Your task to perform on an android device: See recent photos Image 0: 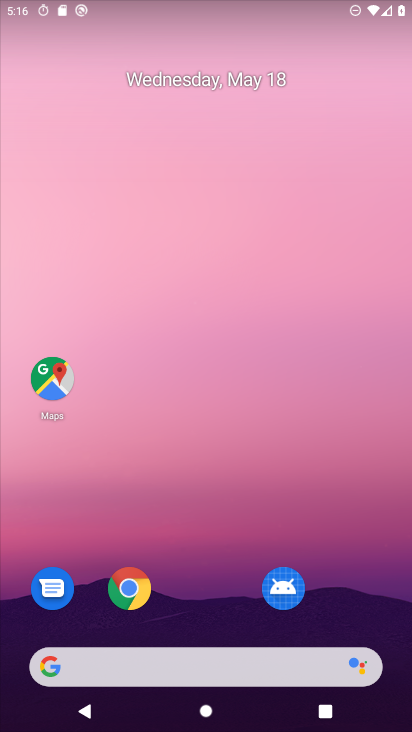
Step 0: drag from (237, 588) to (321, 107)
Your task to perform on an android device: See recent photos Image 1: 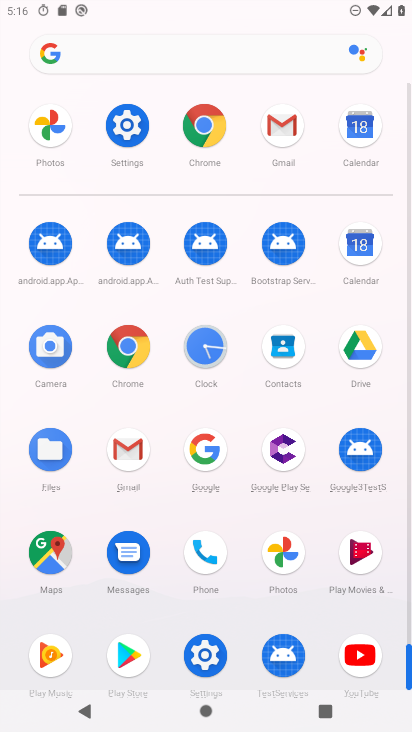
Step 1: click (282, 551)
Your task to perform on an android device: See recent photos Image 2: 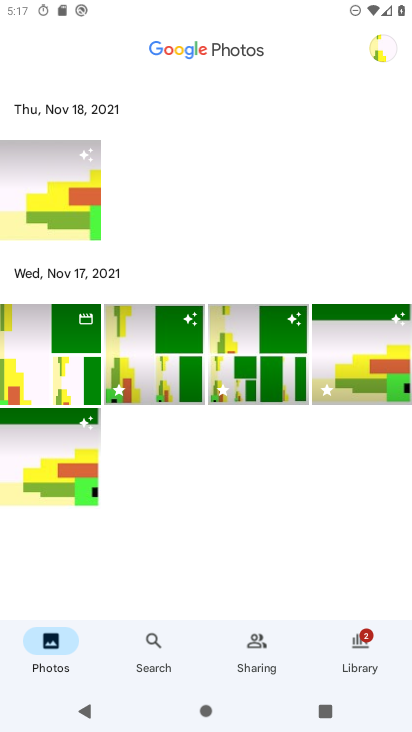
Step 2: click (49, 644)
Your task to perform on an android device: See recent photos Image 3: 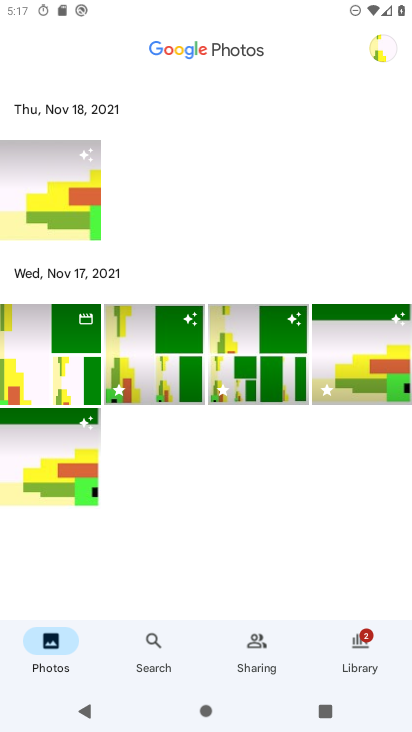
Step 3: click (382, 45)
Your task to perform on an android device: See recent photos Image 4: 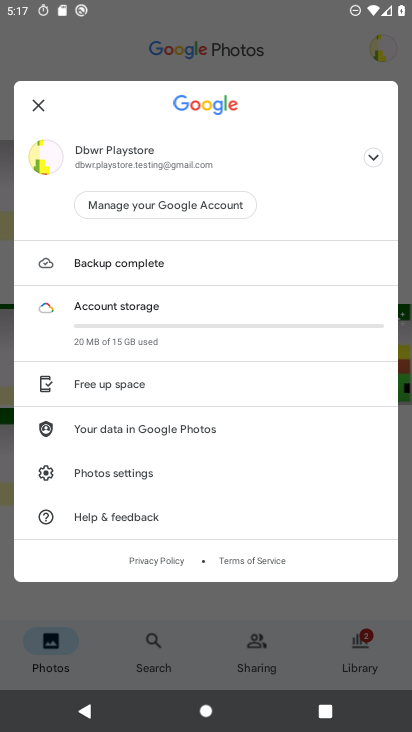
Step 4: click (35, 97)
Your task to perform on an android device: See recent photos Image 5: 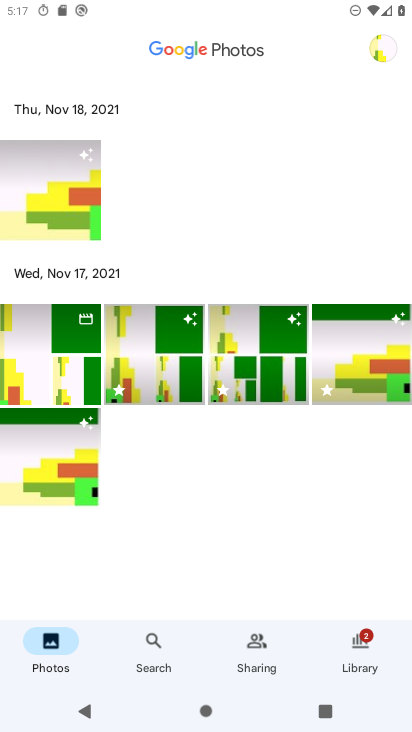
Step 5: click (355, 652)
Your task to perform on an android device: See recent photos Image 6: 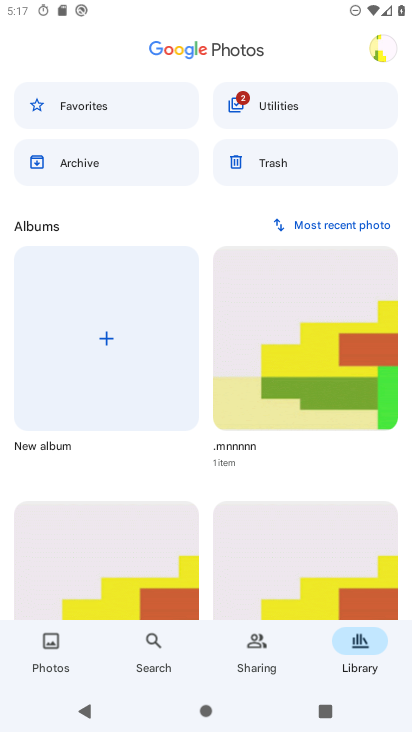
Step 6: click (44, 648)
Your task to perform on an android device: See recent photos Image 7: 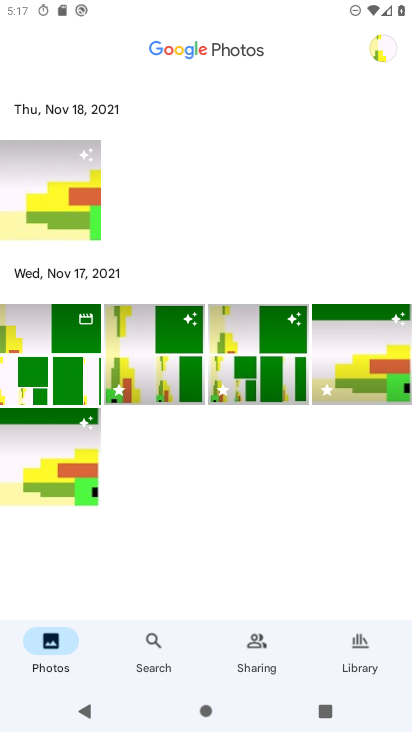
Step 7: task complete